Your task to perform on an android device: What's the weather going to be tomorrow? Image 0: 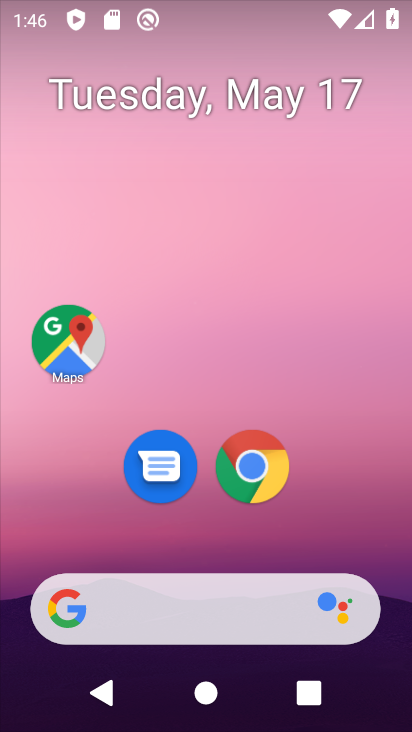
Step 0: click (201, 623)
Your task to perform on an android device: What's the weather going to be tomorrow? Image 1: 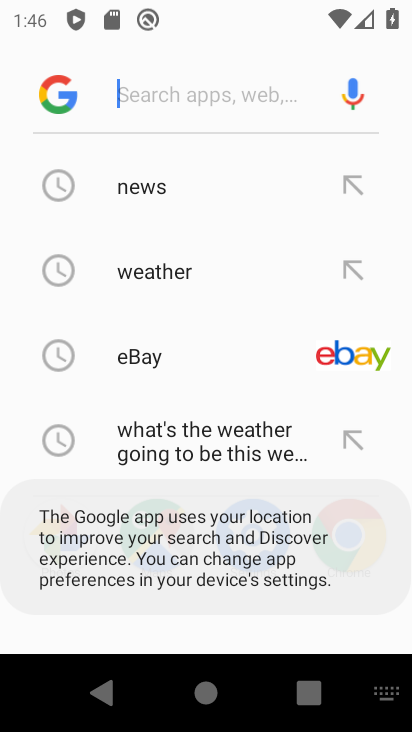
Step 1: click (225, 272)
Your task to perform on an android device: What's the weather going to be tomorrow? Image 2: 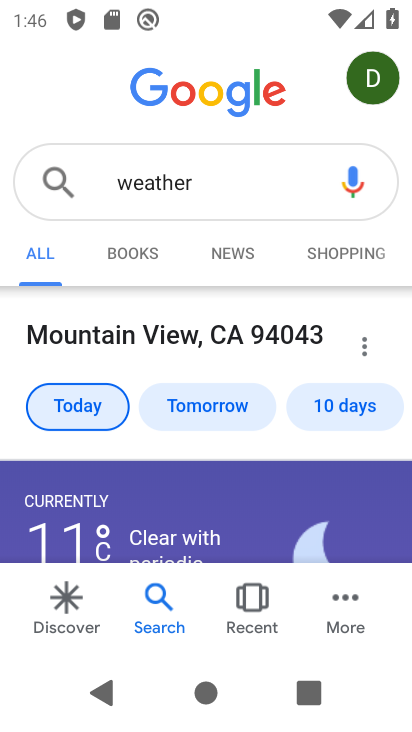
Step 2: click (236, 420)
Your task to perform on an android device: What's the weather going to be tomorrow? Image 3: 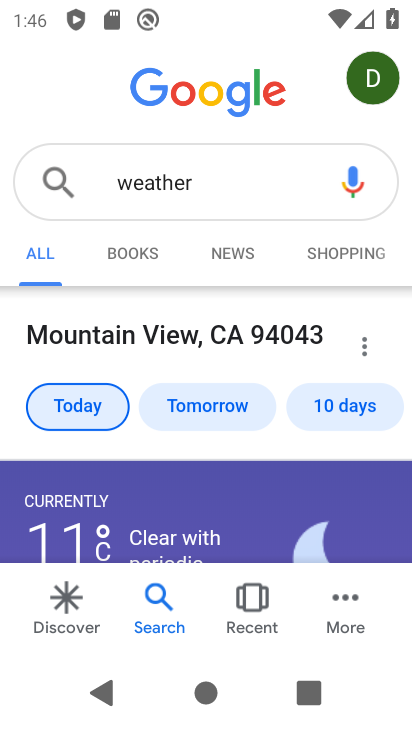
Step 3: drag from (221, 460) to (277, 276)
Your task to perform on an android device: What's the weather going to be tomorrow? Image 4: 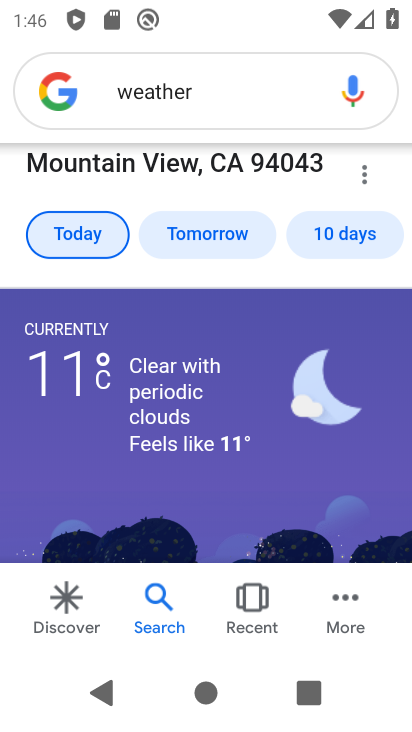
Step 4: click (217, 413)
Your task to perform on an android device: What's the weather going to be tomorrow? Image 5: 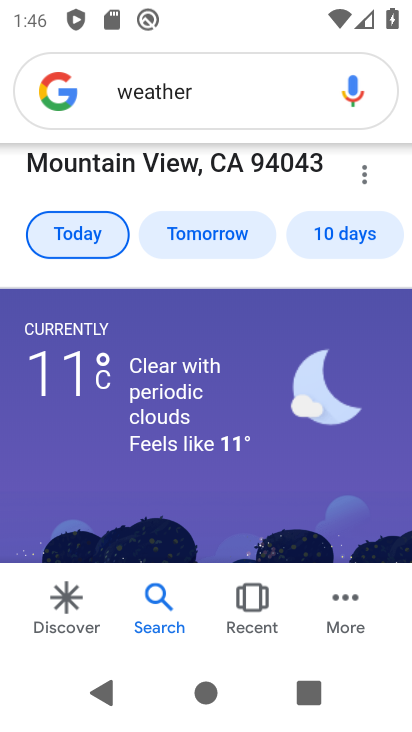
Step 5: drag from (197, 433) to (266, 111)
Your task to perform on an android device: What's the weather going to be tomorrow? Image 6: 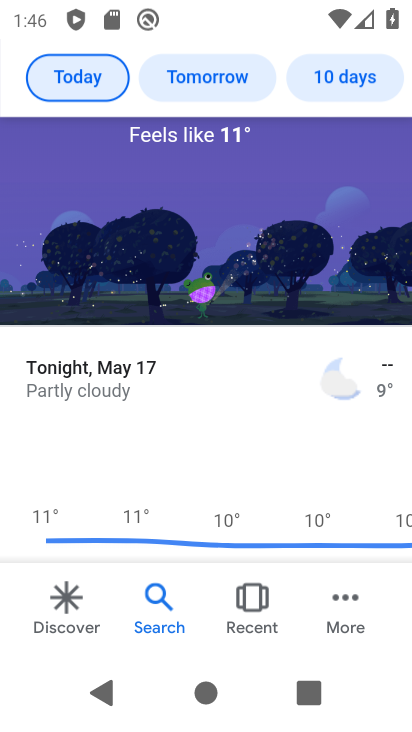
Step 6: click (195, 404)
Your task to perform on an android device: What's the weather going to be tomorrow? Image 7: 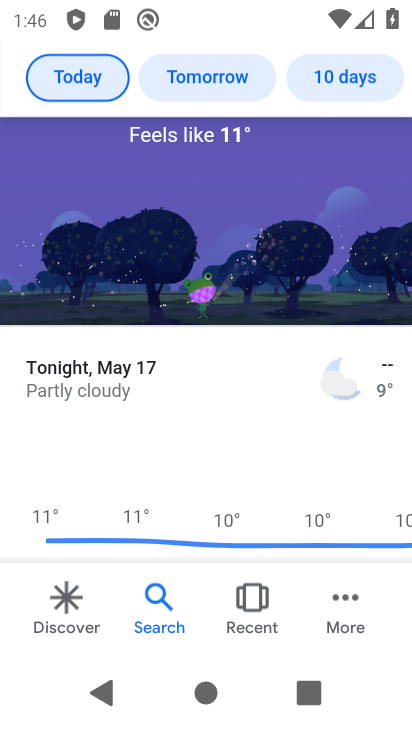
Step 7: drag from (187, 452) to (329, 68)
Your task to perform on an android device: What's the weather going to be tomorrow? Image 8: 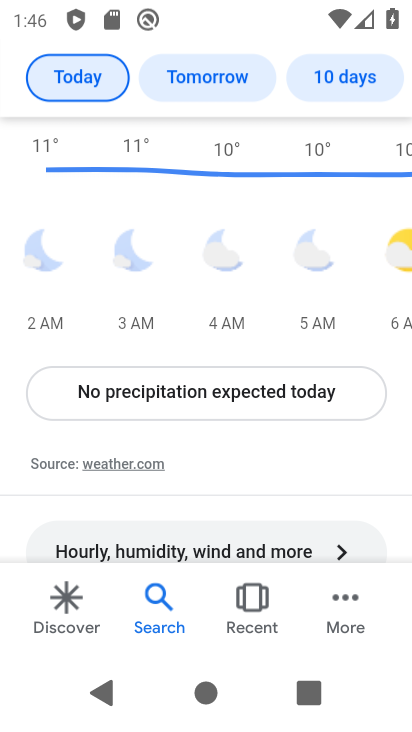
Step 8: click (208, 397)
Your task to perform on an android device: What's the weather going to be tomorrow? Image 9: 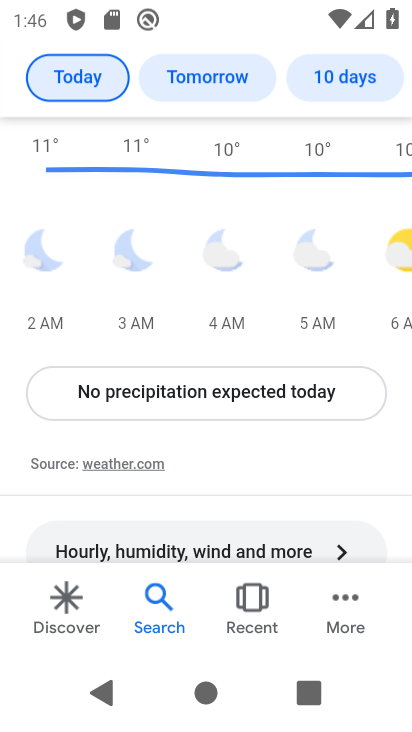
Step 9: click (219, 79)
Your task to perform on an android device: What's the weather going to be tomorrow? Image 10: 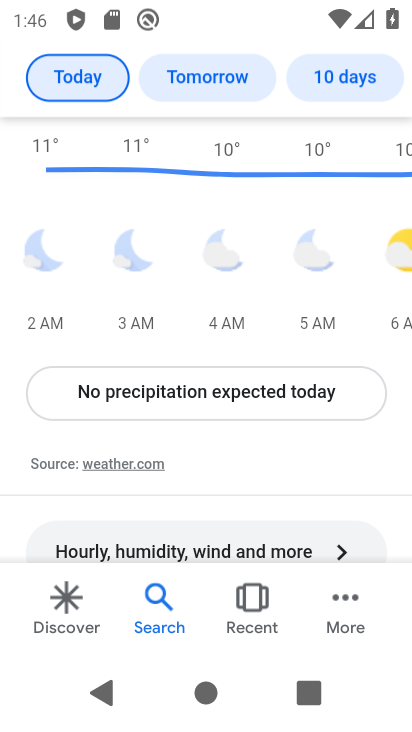
Step 10: drag from (196, 424) to (291, 129)
Your task to perform on an android device: What's the weather going to be tomorrow? Image 11: 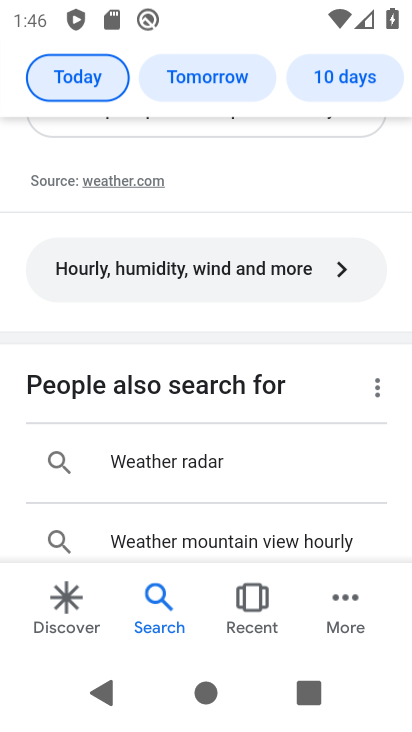
Step 11: click (326, 271)
Your task to perform on an android device: What's the weather going to be tomorrow? Image 12: 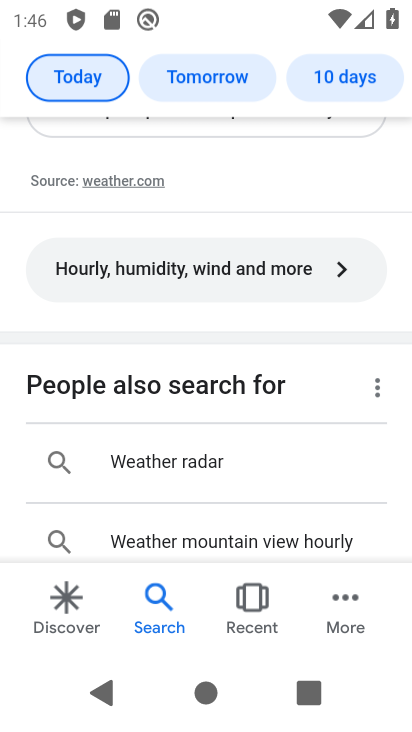
Step 12: click (328, 286)
Your task to perform on an android device: What's the weather going to be tomorrow? Image 13: 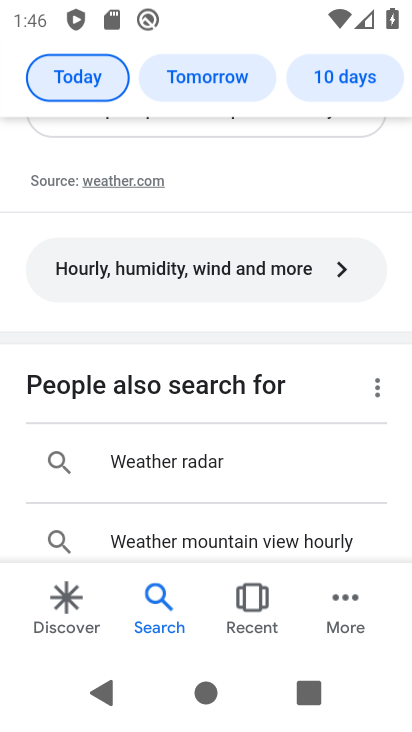
Step 13: drag from (242, 538) to (396, 108)
Your task to perform on an android device: What's the weather going to be tomorrow? Image 14: 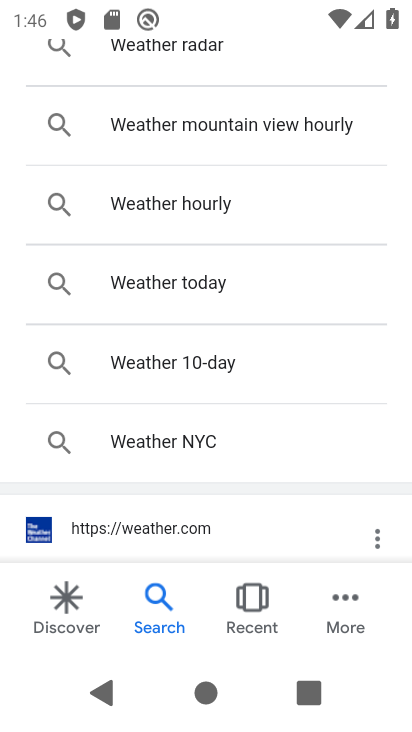
Step 14: drag from (210, 525) to (299, 169)
Your task to perform on an android device: What's the weather going to be tomorrow? Image 15: 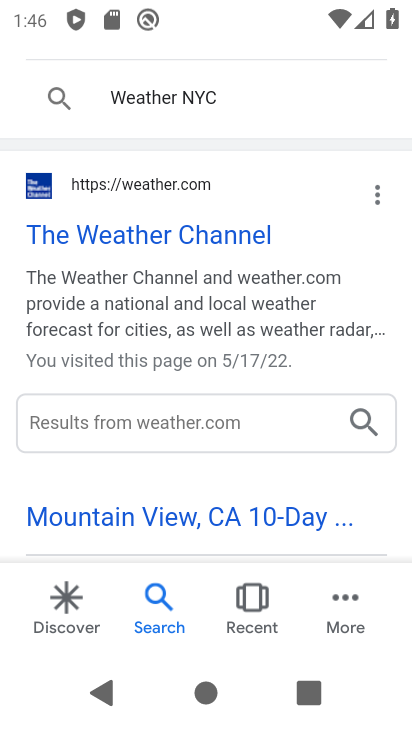
Step 15: click (205, 240)
Your task to perform on an android device: What's the weather going to be tomorrow? Image 16: 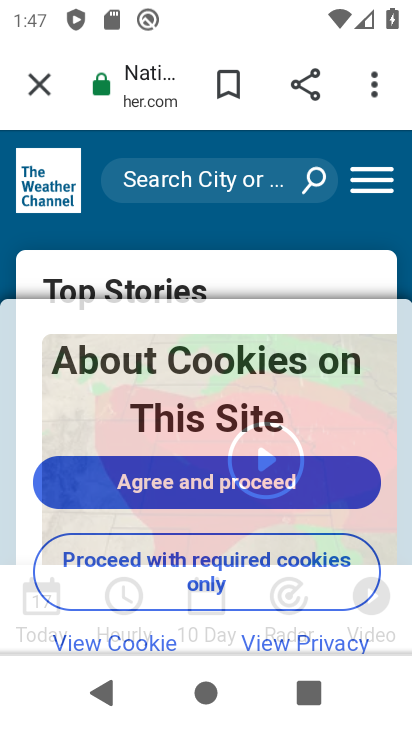
Step 16: click (193, 628)
Your task to perform on an android device: What's the weather going to be tomorrow? Image 17: 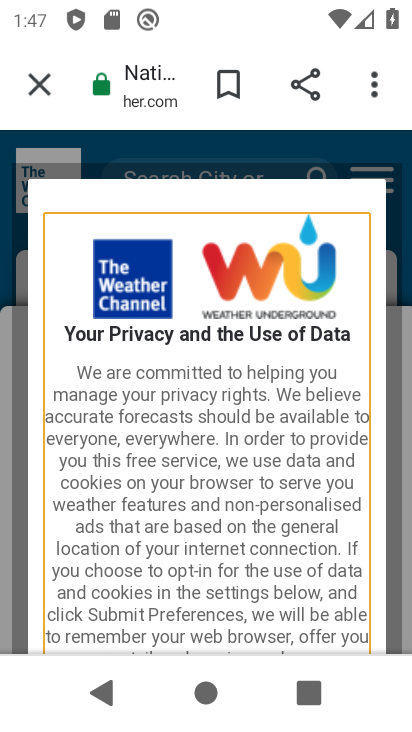
Step 17: drag from (241, 534) to (348, 153)
Your task to perform on an android device: What's the weather going to be tomorrow? Image 18: 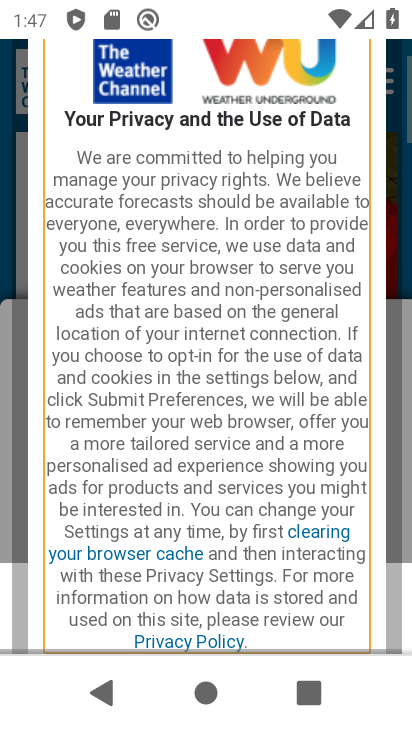
Step 18: drag from (227, 596) to (348, 174)
Your task to perform on an android device: What's the weather going to be tomorrow? Image 19: 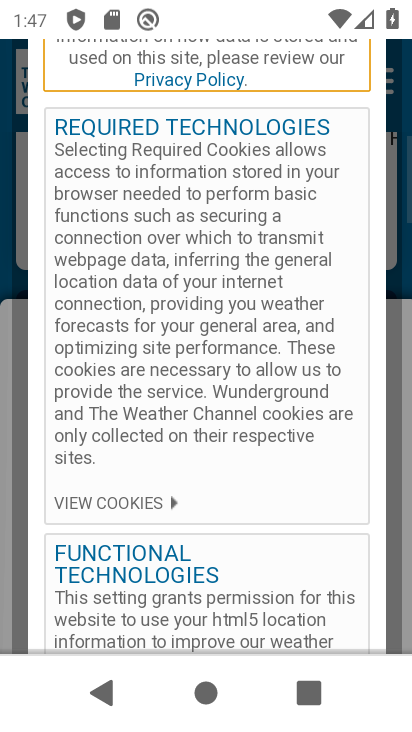
Step 19: drag from (172, 525) to (342, 45)
Your task to perform on an android device: What's the weather going to be tomorrow? Image 20: 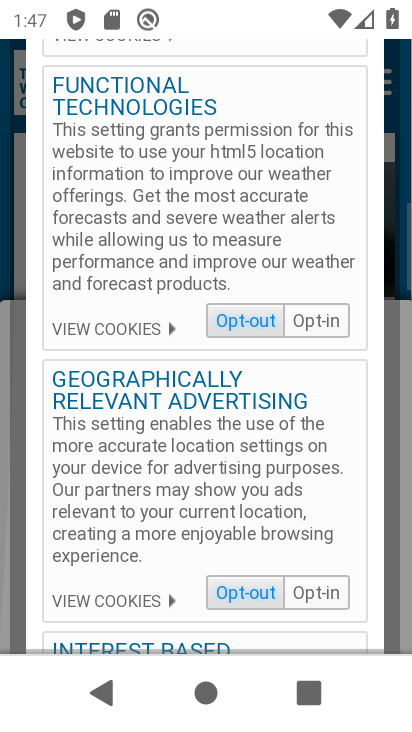
Step 20: drag from (227, 542) to (405, 55)
Your task to perform on an android device: What's the weather going to be tomorrow? Image 21: 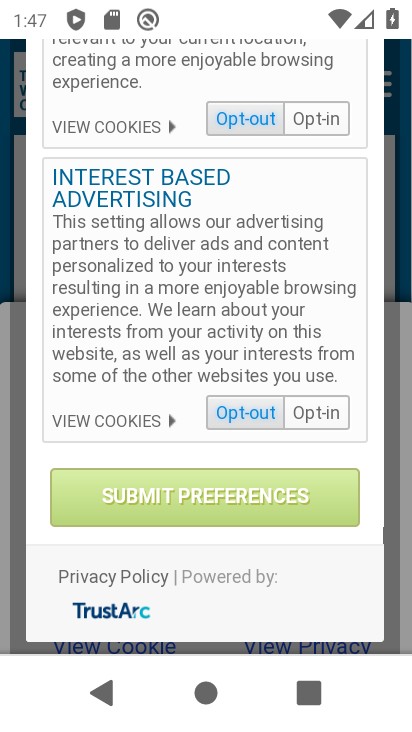
Step 21: click (232, 517)
Your task to perform on an android device: What's the weather going to be tomorrow? Image 22: 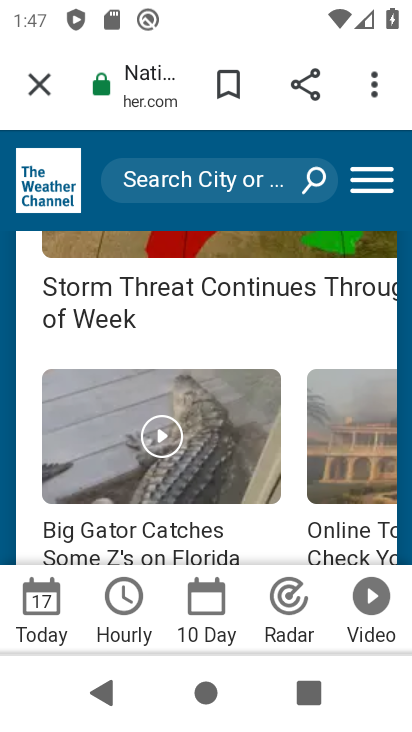
Step 22: click (206, 613)
Your task to perform on an android device: What's the weather going to be tomorrow? Image 23: 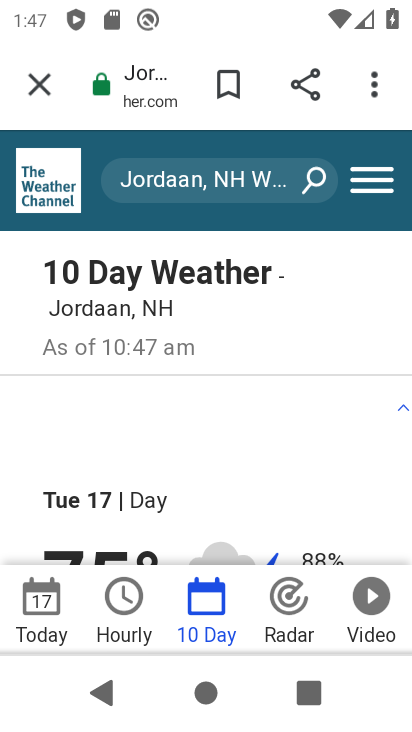
Step 23: task complete